Your task to perform on an android device: Open network settings Image 0: 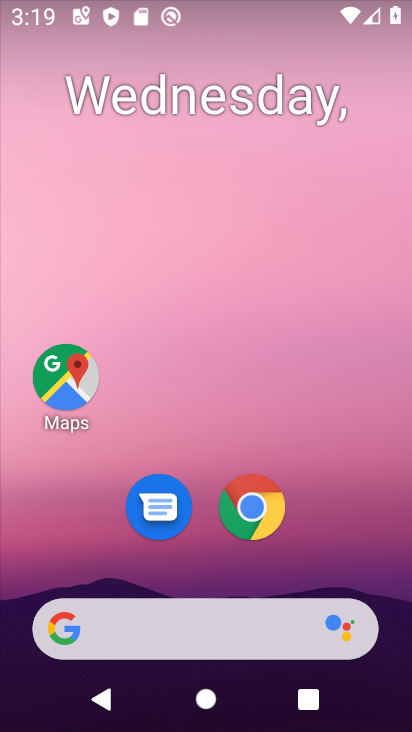
Step 0: drag from (316, 494) to (312, 177)
Your task to perform on an android device: Open network settings Image 1: 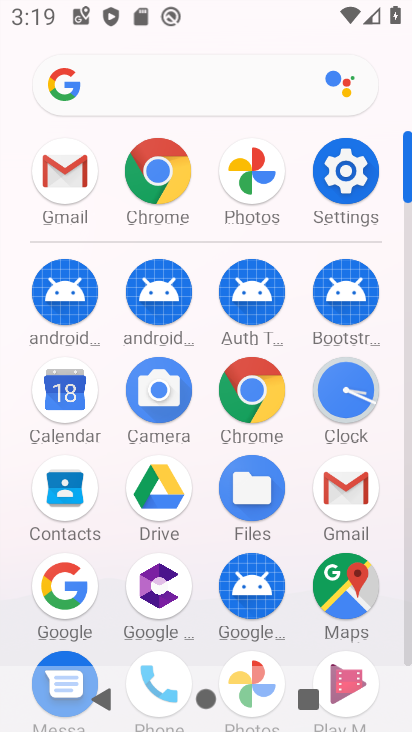
Step 1: click (336, 168)
Your task to perform on an android device: Open network settings Image 2: 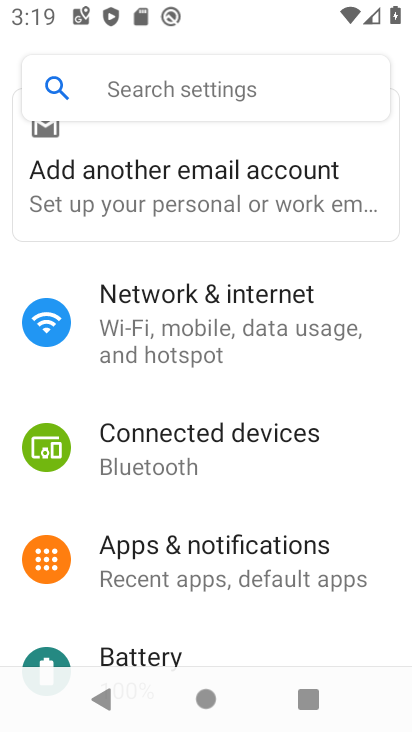
Step 2: click (151, 313)
Your task to perform on an android device: Open network settings Image 3: 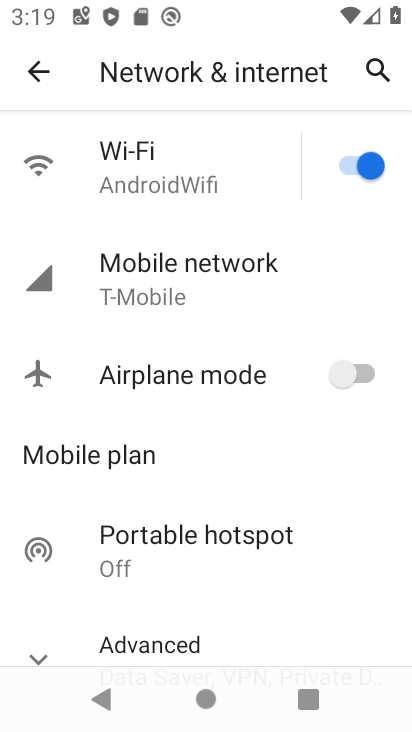
Step 3: task complete